Your task to perform on an android device: Go to network settings Image 0: 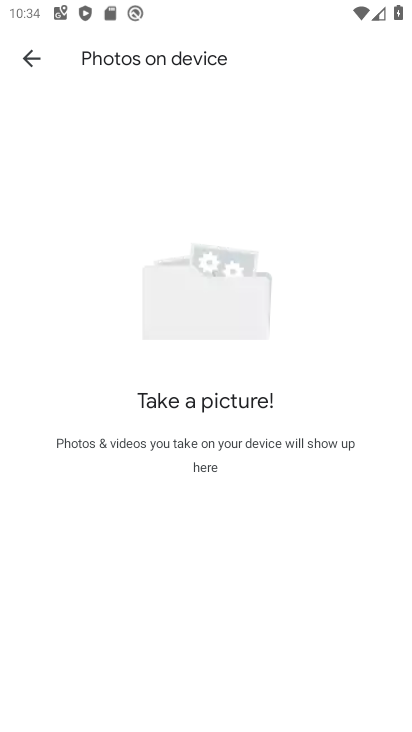
Step 0: press home button
Your task to perform on an android device: Go to network settings Image 1: 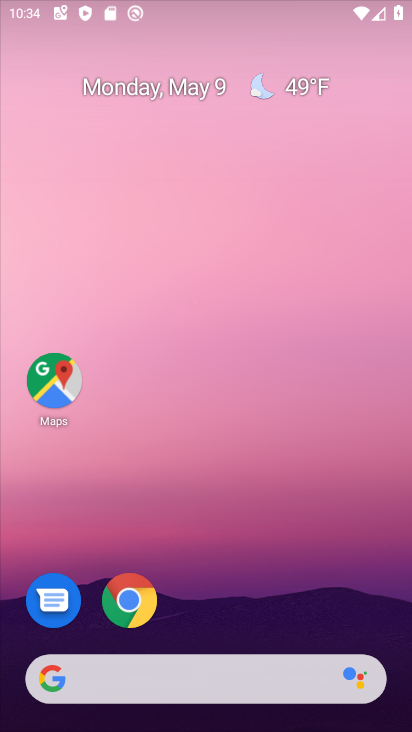
Step 1: drag from (364, 572) to (335, 139)
Your task to perform on an android device: Go to network settings Image 2: 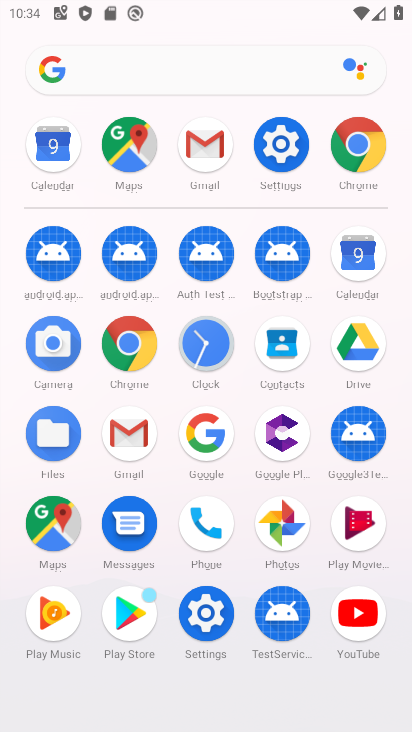
Step 2: click (270, 137)
Your task to perform on an android device: Go to network settings Image 3: 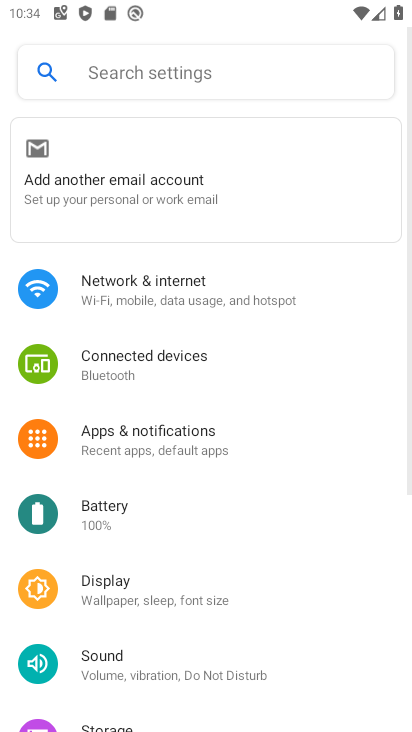
Step 3: click (165, 283)
Your task to perform on an android device: Go to network settings Image 4: 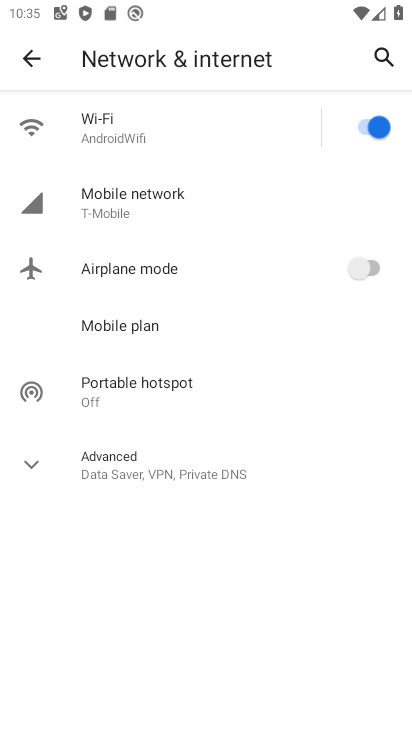
Step 4: task complete